Your task to perform on an android device: Show me the alarms in the clock app Image 0: 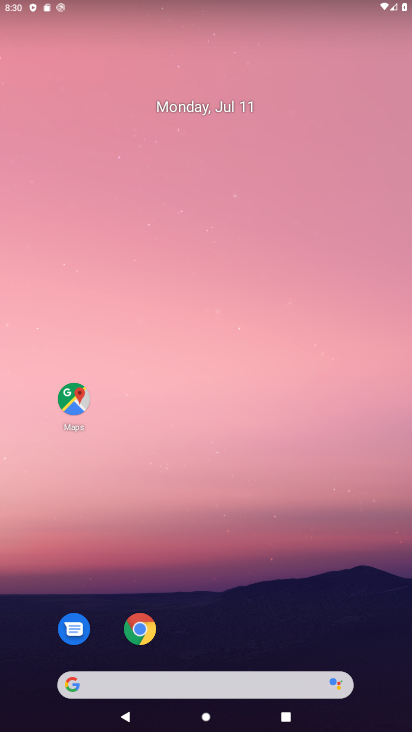
Step 0: drag from (201, 640) to (286, 62)
Your task to perform on an android device: Show me the alarms in the clock app Image 1: 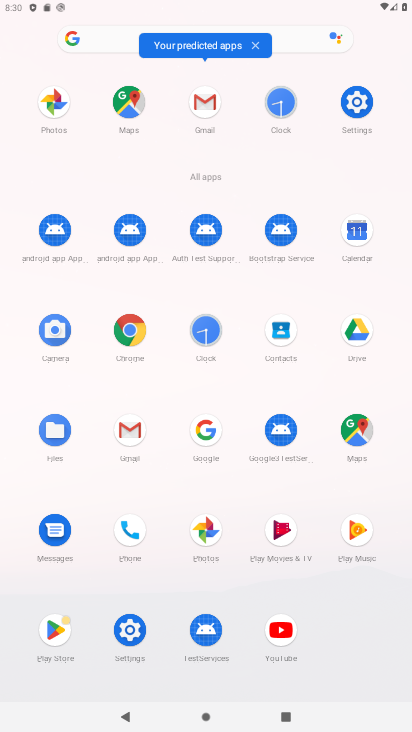
Step 1: click (213, 338)
Your task to perform on an android device: Show me the alarms in the clock app Image 2: 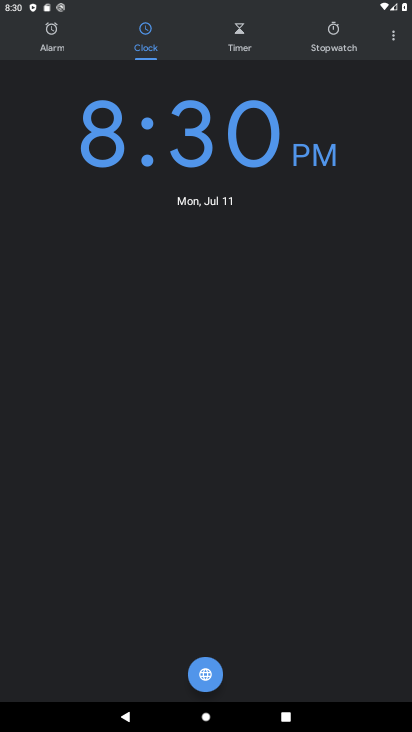
Step 2: click (389, 42)
Your task to perform on an android device: Show me the alarms in the clock app Image 3: 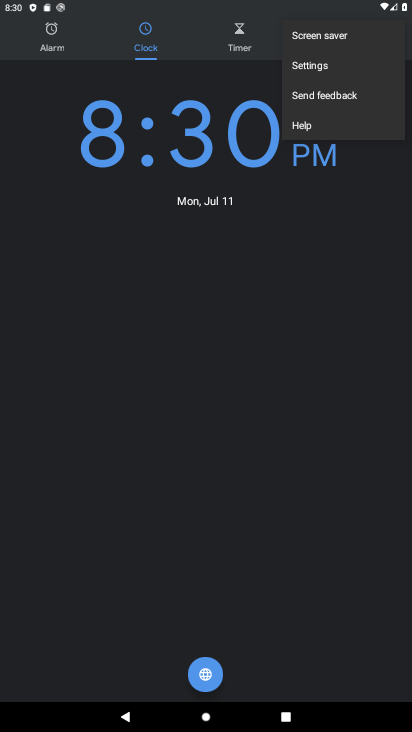
Step 3: click (57, 44)
Your task to perform on an android device: Show me the alarms in the clock app Image 4: 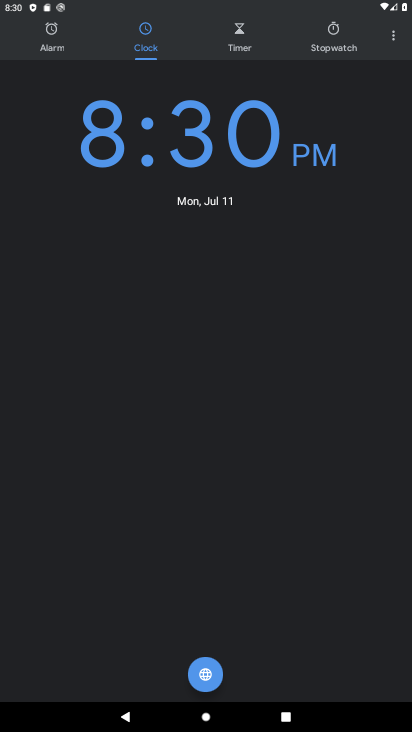
Step 4: click (57, 44)
Your task to perform on an android device: Show me the alarms in the clock app Image 5: 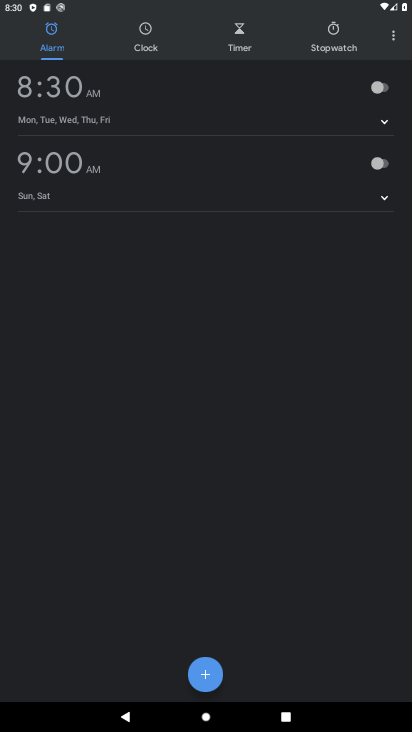
Step 5: task complete